Your task to perform on an android device: set an alarm Image 0: 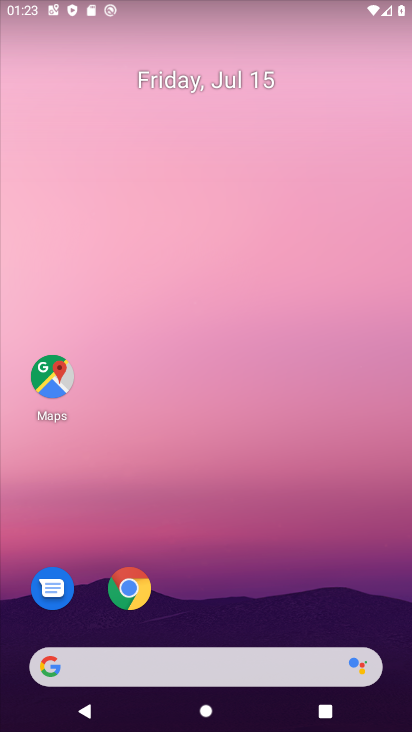
Step 0: drag from (371, 615) to (344, 116)
Your task to perform on an android device: set an alarm Image 1: 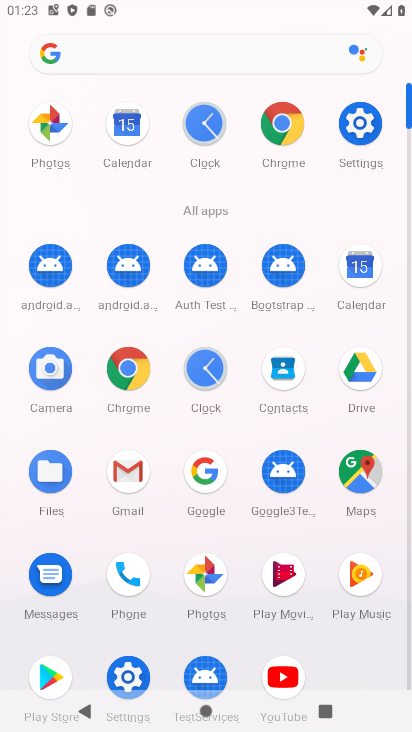
Step 1: click (204, 368)
Your task to perform on an android device: set an alarm Image 2: 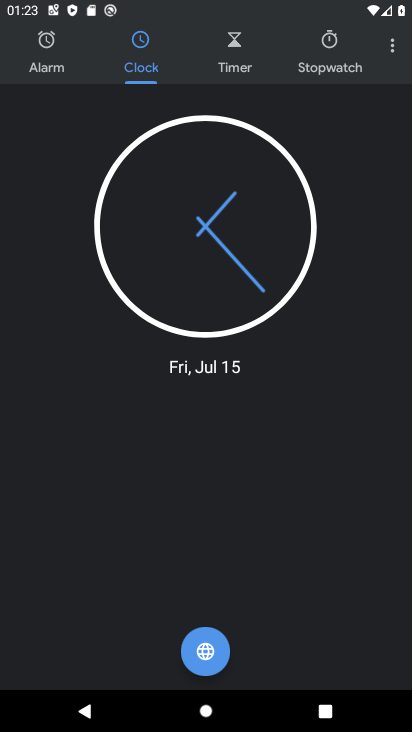
Step 2: click (38, 44)
Your task to perform on an android device: set an alarm Image 3: 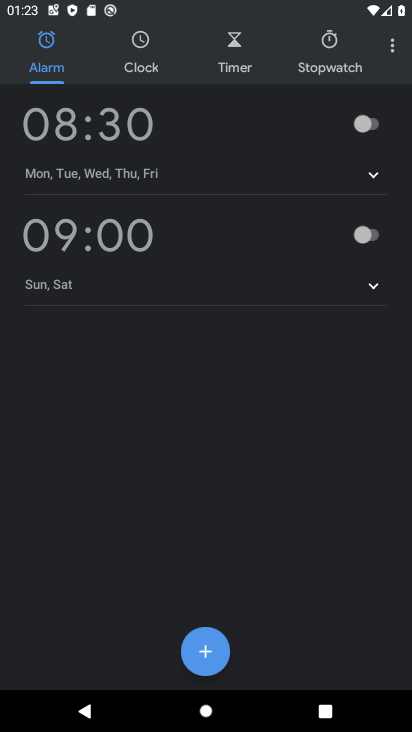
Step 3: click (77, 115)
Your task to perform on an android device: set an alarm Image 4: 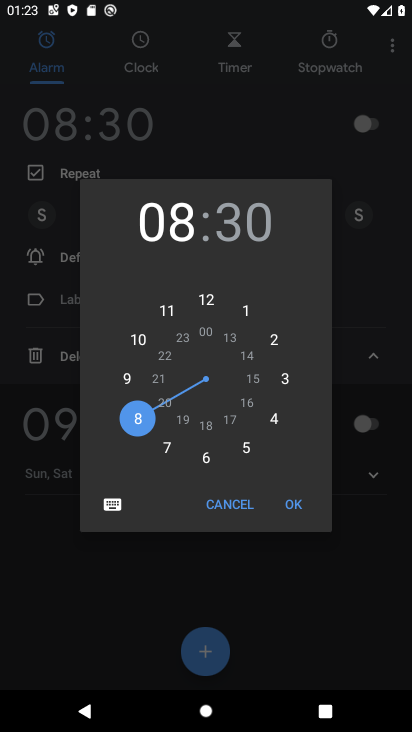
Step 4: click (208, 460)
Your task to perform on an android device: set an alarm Image 5: 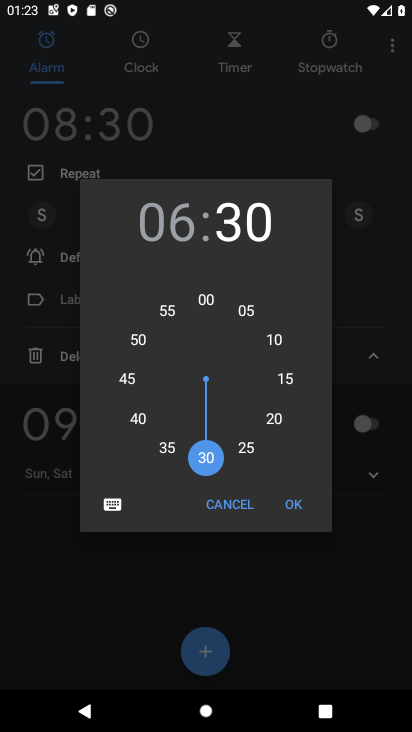
Step 5: click (286, 383)
Your task to perform on an android device: set an alarm Image 6: 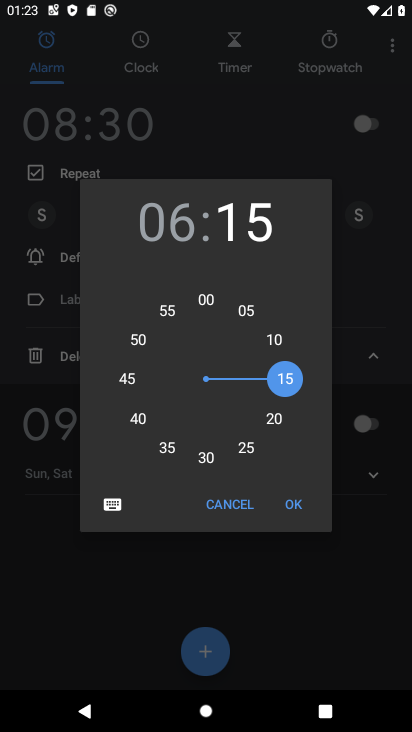
Step 6: click (298, 504)
Your task to perform on an android device: set an alarm Image 7: 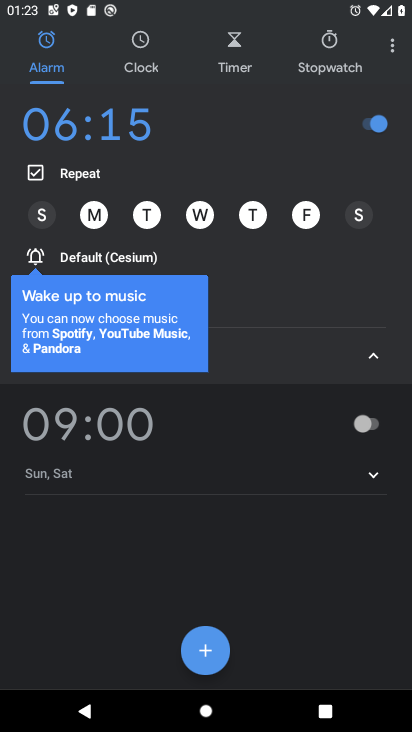
Step 7: click (357, 213)
Your task to perform on an android device: set an alarm Image 8: 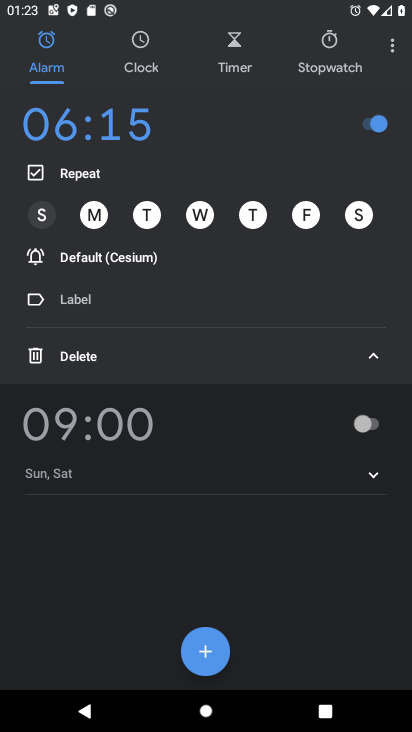
Step 8: click (371, 359)
Your task to perform on an android device: set an alarm Image 9: 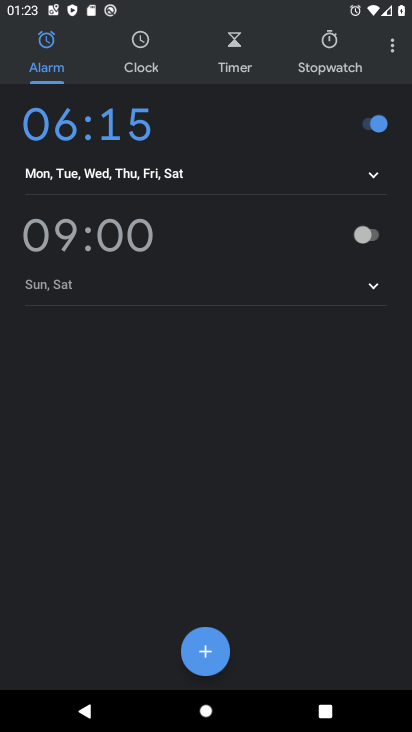
Step 9: task complete